Your task to perform on an android device: set the timer Image 0: 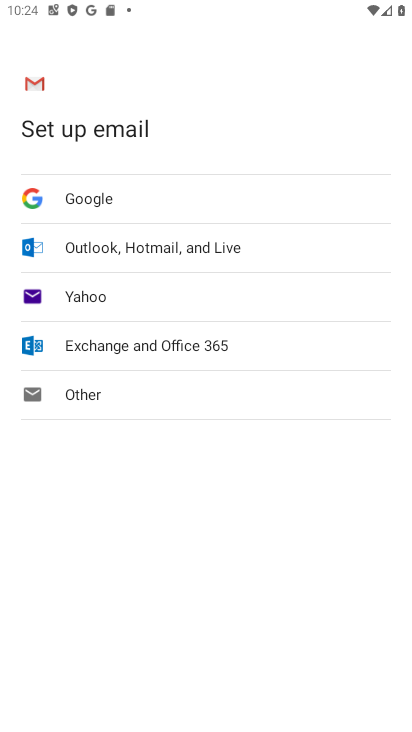
Step 0: press home button
Your task to perform on an android device: set the timer Image 1: 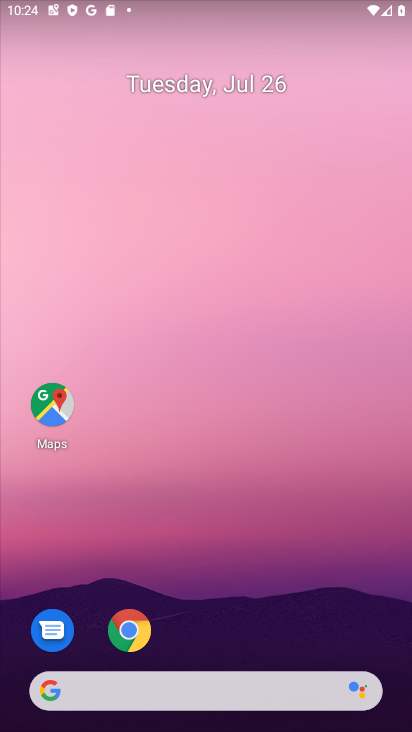
Step 1: drag from (183, 696) to (194, 191)
Your task to perform on an android device: set the timer Image 2: 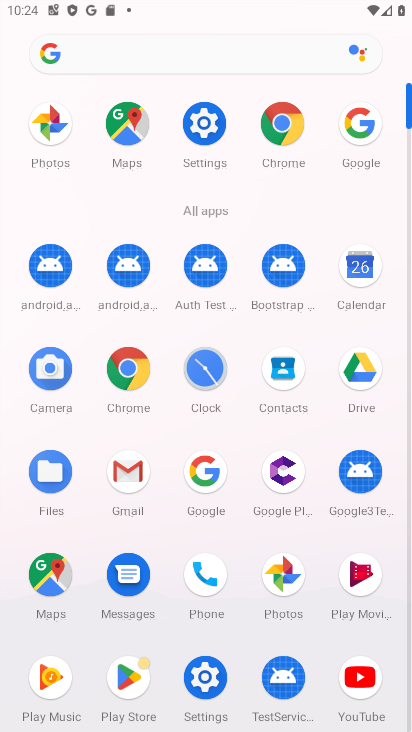
Step 2: click (208, 372)
Your task to perform on an android device: set the timer Image 3: 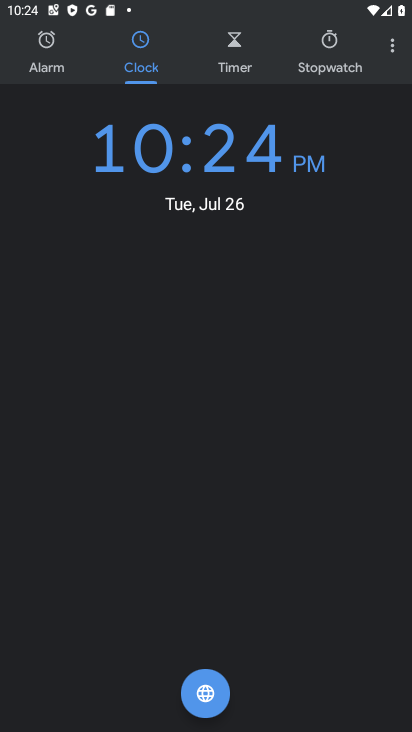
Step 3: click (235, 38)
Your task to perform on an android device: set the timer Image 4: 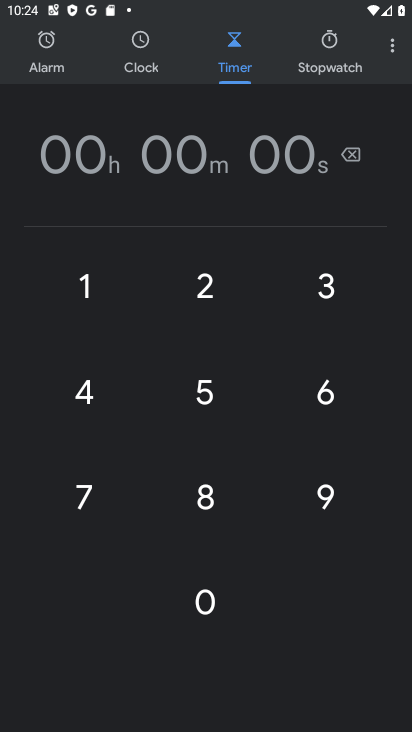
Step 4: type "136"
Your task to perform on an android device: set the timer Image 5: 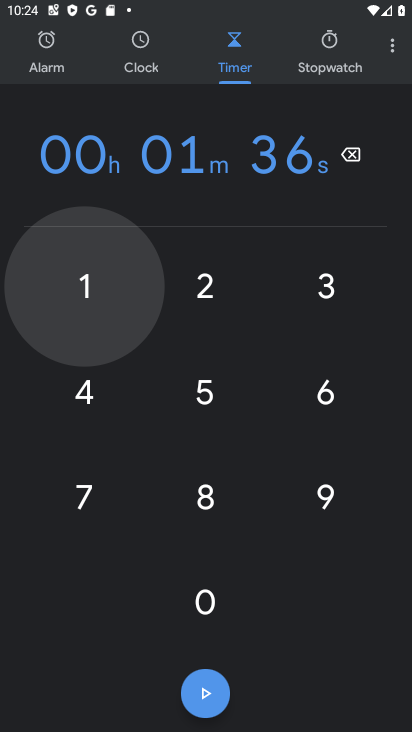
Step 5: click (206, 693)
Your task to perform on an android device: set the timer Image 6: 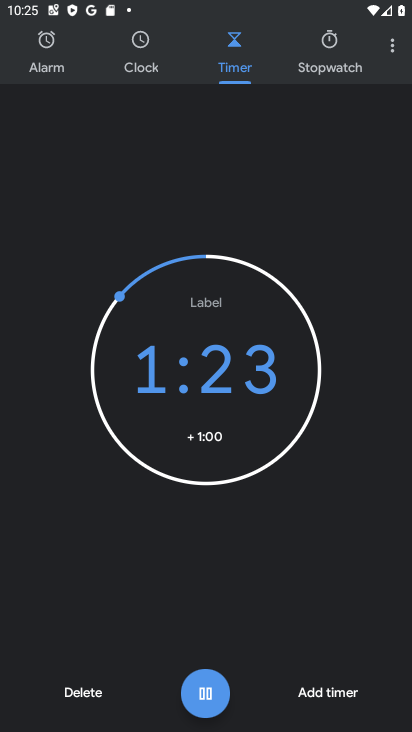
Step 6: click (207, 686)
Your task to perform on an android device: set the timer Image 7: 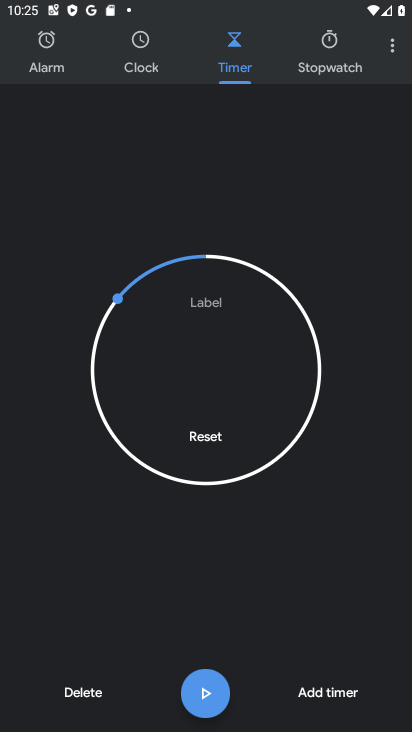
Step 7: task complete